Your task to perform on an android device: Check the weather Image 0: 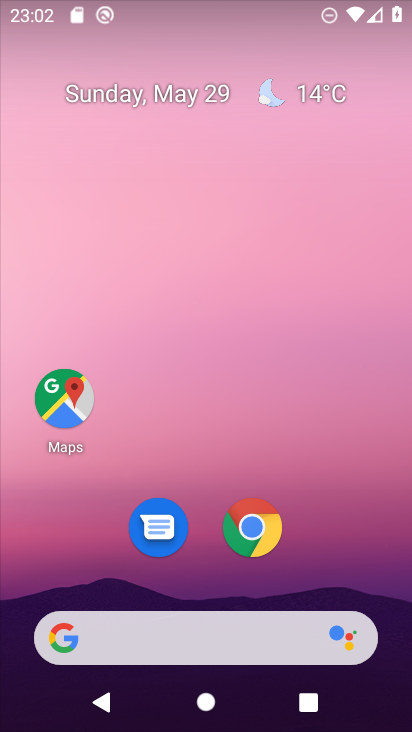
Step 0: press home button
Your task to perform on an android device: Check the weather Image 1: 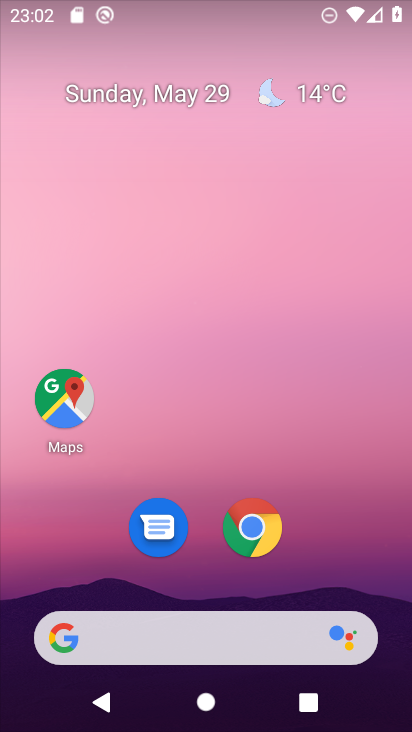
Step 1: click (73, 642)
Your task to perform on an android device: Check the weather Image 2: 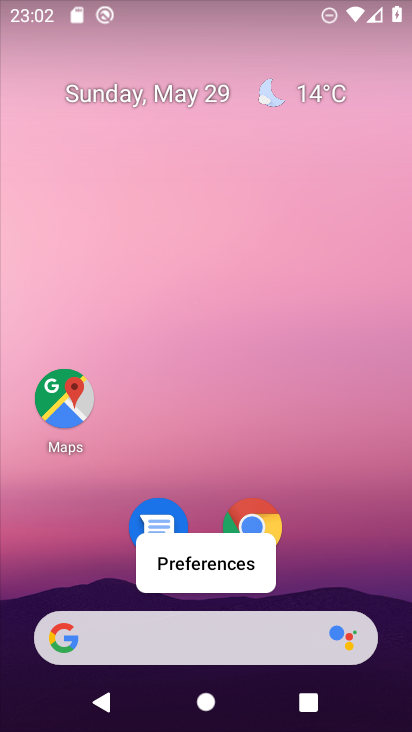
Step 2: click (67, 641)
Your task to perform on an android device: Check the weather Image 3: 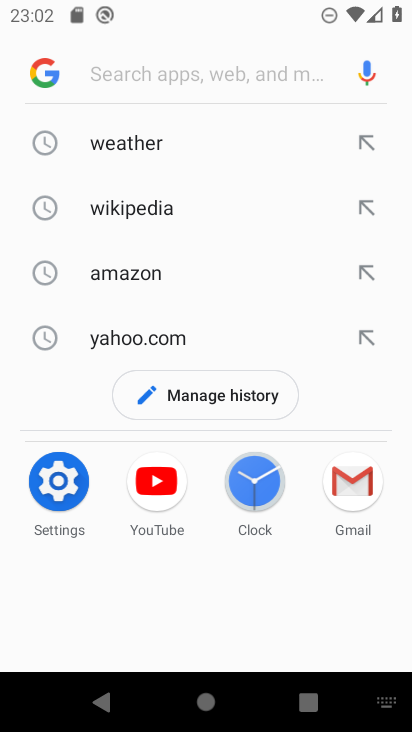
Step 3: click (117, 146)
Your task to perform on an android device: Check the weather Image 4: 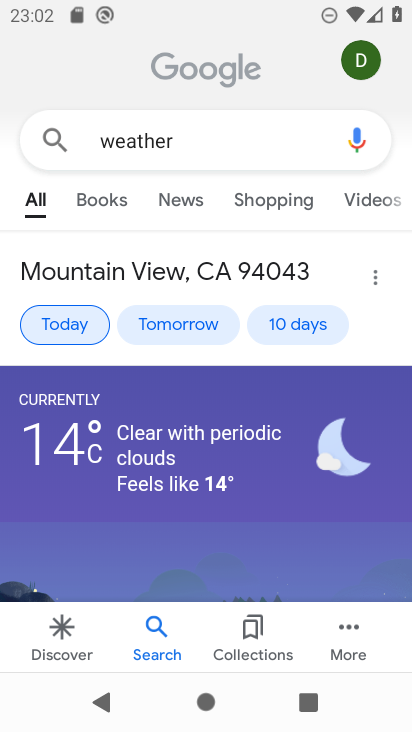
Step 4: task complete